Your task to perform on an android device: What's on my calendar today? Image 0: 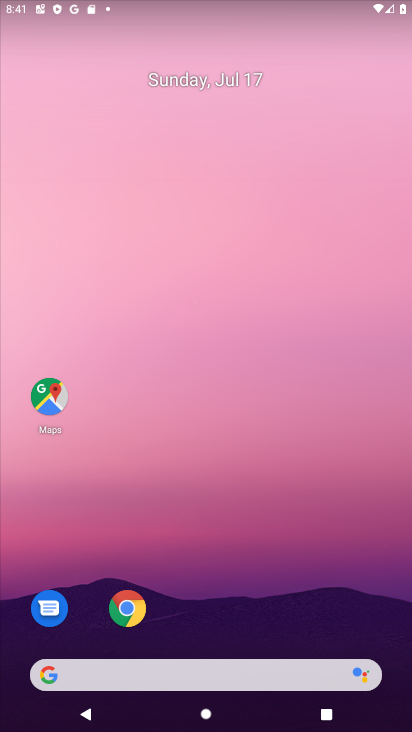
Step 0: drag from (182, 665) to (261, 212)
Your task to perform on an android device: What's on my calendar today? Image 1: 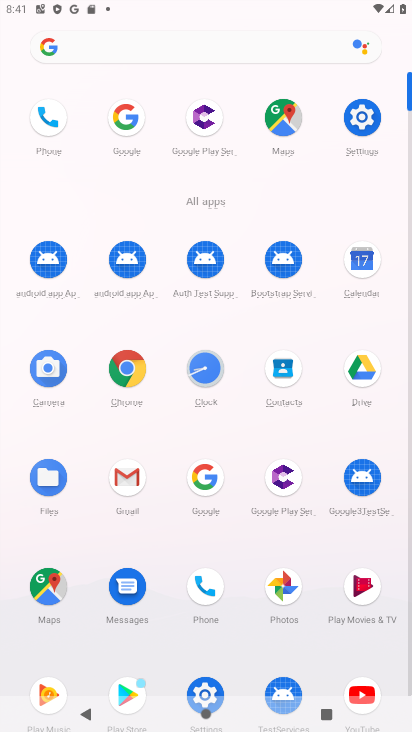
Step 1: click (361, 266)
Your task to perform on an android device: What's on my calendar today? Image 2: 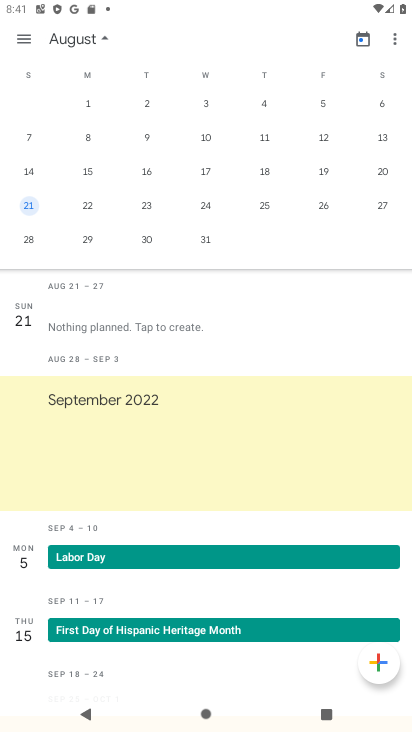
Step 2: task complete